Your task to perform on an android device: Open CNN.com Image 0: 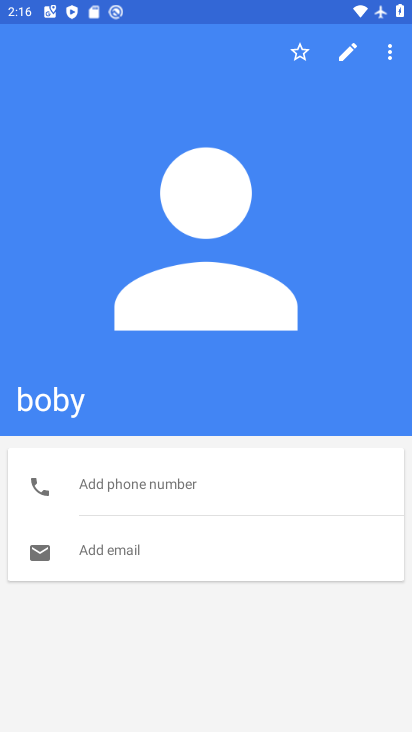
Step 0: press home button
Your task to perform on an android device: Open CNN.com Image 1: 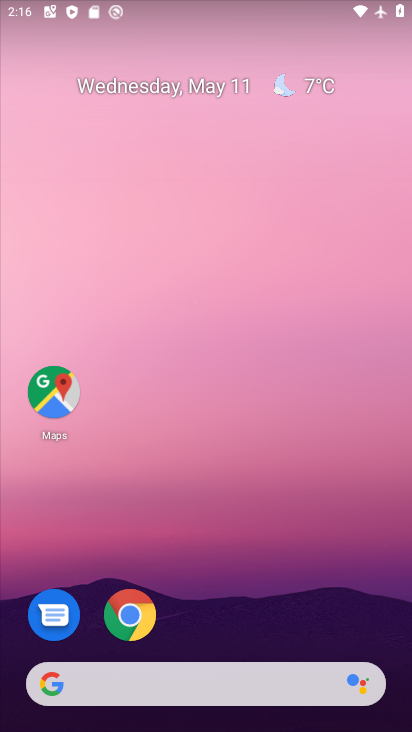
Step 1: click (138, 611)
Your task to perform on an android device: Open CNN.com Image 2: 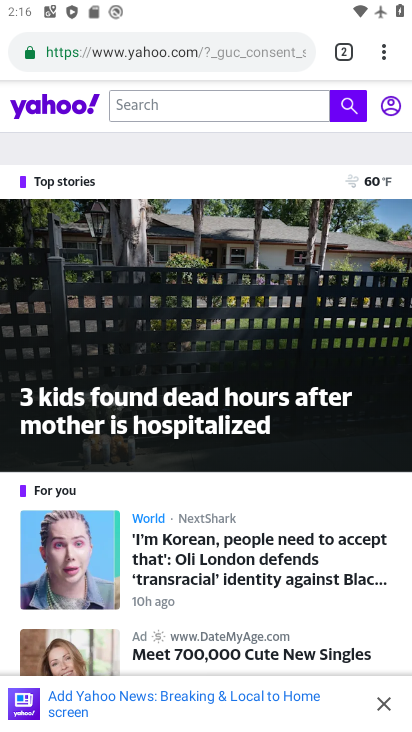
Step 2: click (258, 55)
Your task to perform on an android device: Open CNN.com Image 3: 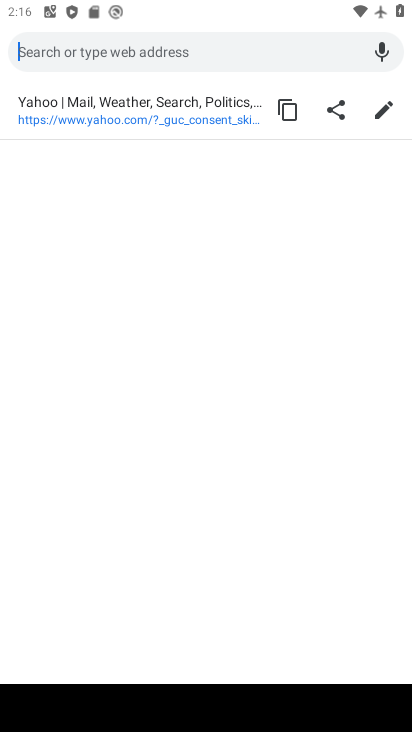
Step 3: type "cnn.com"
Your task to perform on an android device: Open CNN.com Image 4: 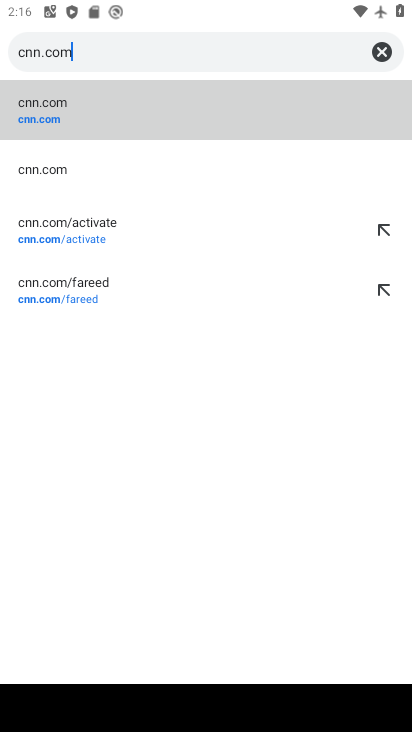
Step 4: click (40, 115)
Your task to perform on an android device: Open CNN.com Image 5: 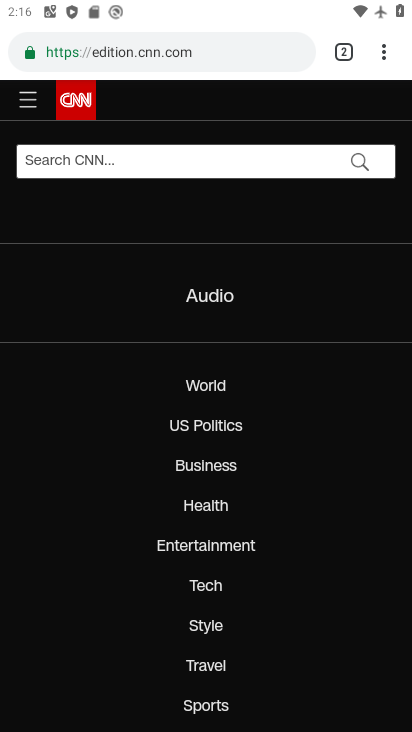
Step 5: task complete